Your task to perform on an android device: Open Youtube and go to the subscriptions tab Image 0: 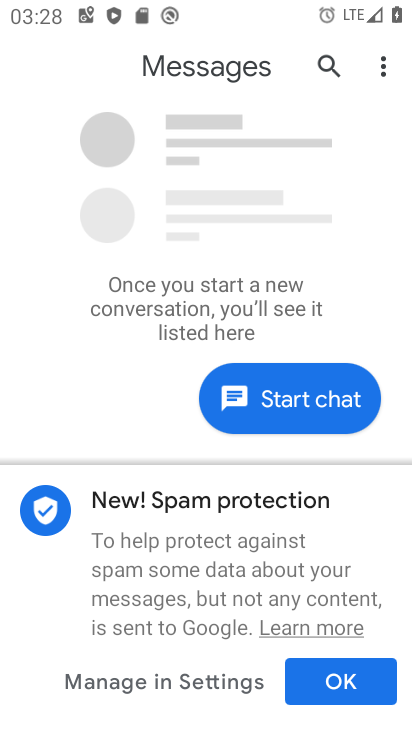
Step 0: press home button
Your task to perform on an android device: Open Youtube and go to the subscriptions tab Image 1: 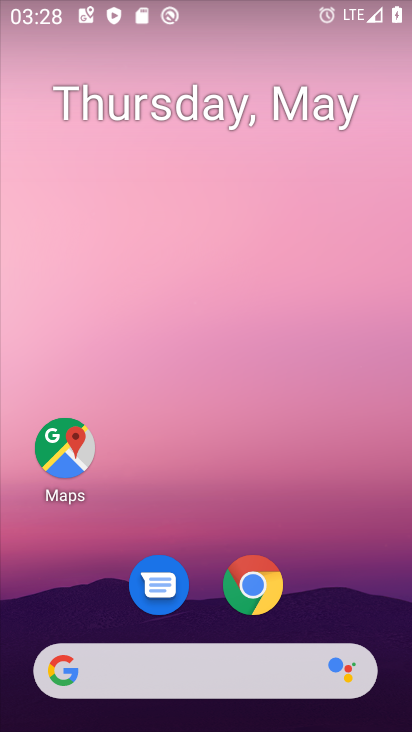
Step 1: drag from (223, 515) to (232, 44)
Your task to perform on an android device: Open Youtube and go to the subscriptions tab Image 2: 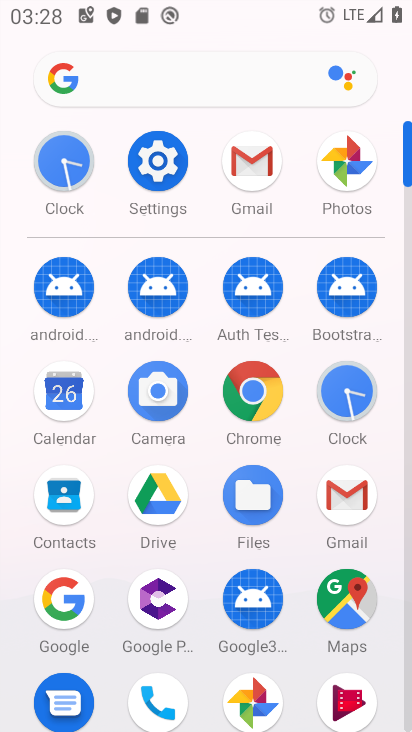
Step 2: drag from (194, 433) to (205, 124)
Your task to perform on an android device: Open Youtube and go to the subscriptions tab Image 3: 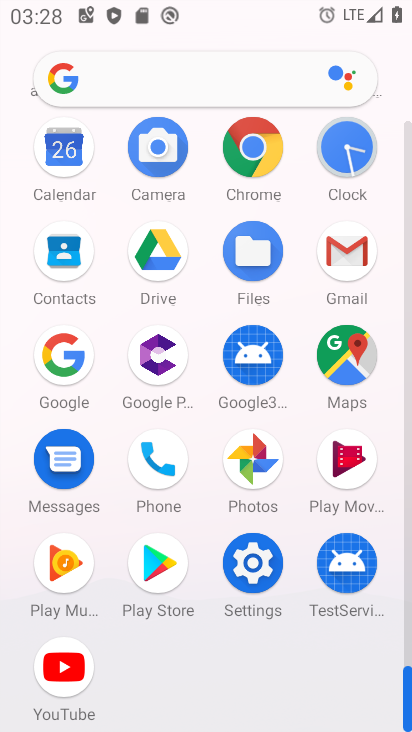
Step 3: click (65, 658)
Your task to perform on an android device: Open Youtube and go to the subscriptions tab Image 4: 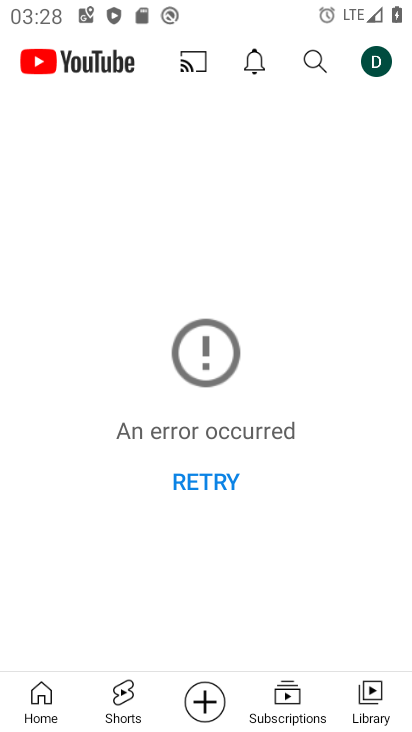
Step 4: click (279, 696)
Your task to perform on an android device: Open Youtube and go to the subscriptions tab Image 5: 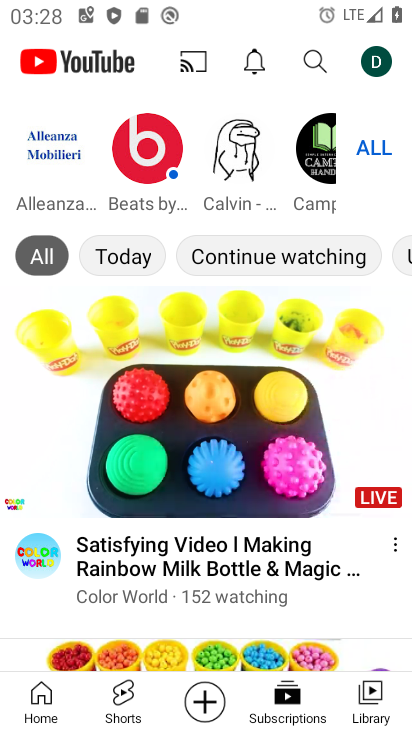
Step 5: task complete